Your task to perform on an android device: Check the news Image 0: 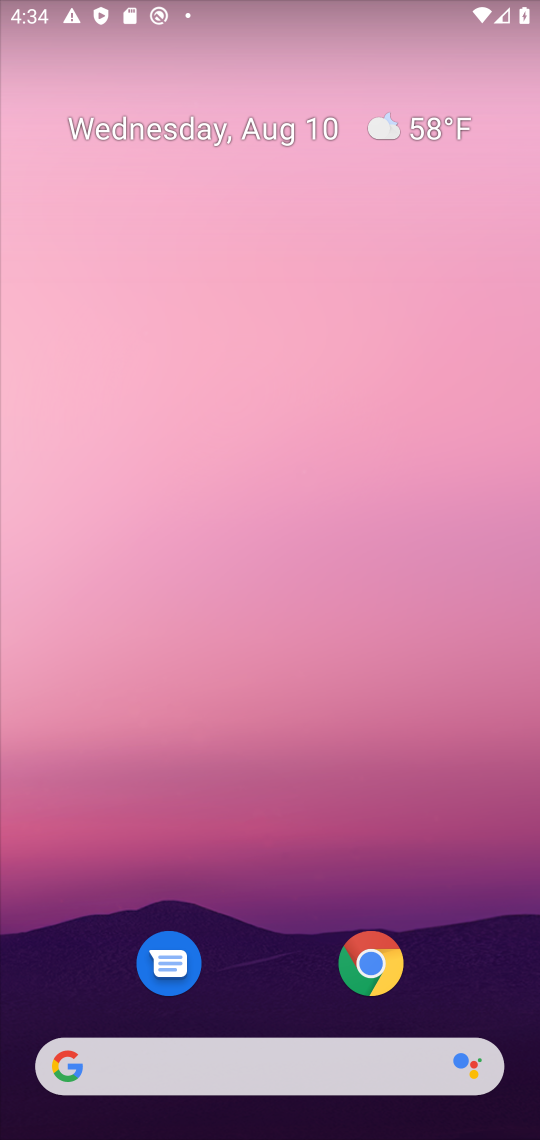
Step 0: drag from (289, 949) to (439, 44)
Your task to perform on an android device: Check the news Image 1: 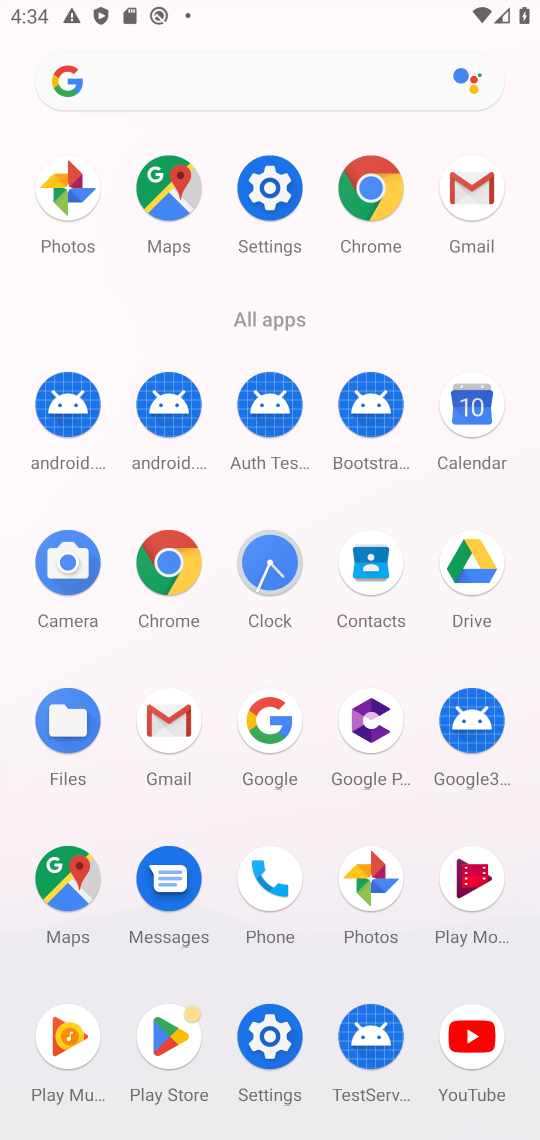
Step 1: click (155, 570)
Your task to perform on an android device: Check the news Image 2: 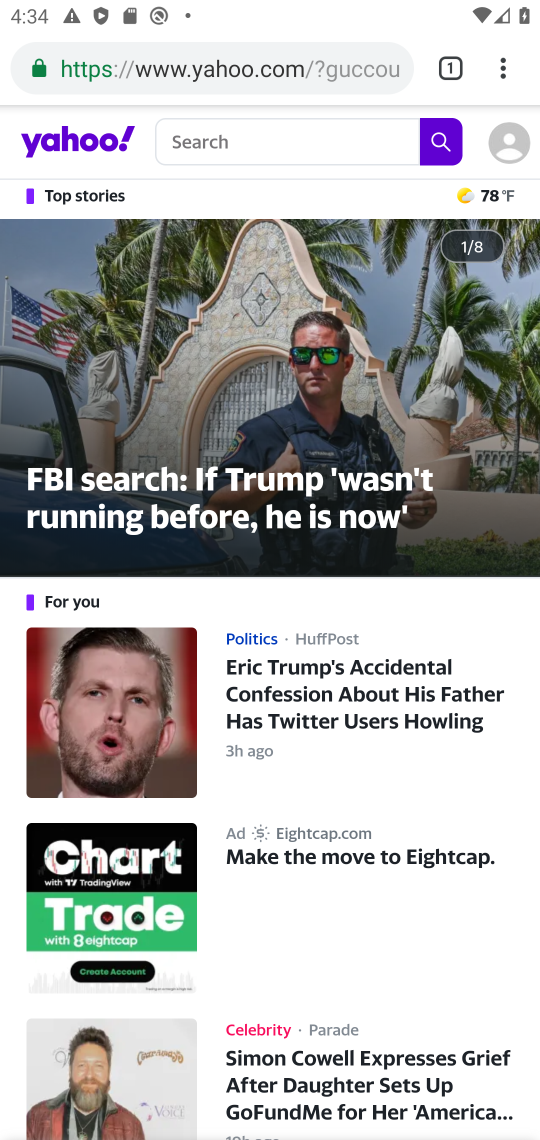
Step 2: click (291, 58)
Your task to perform on an android device: Check the news Image 3: 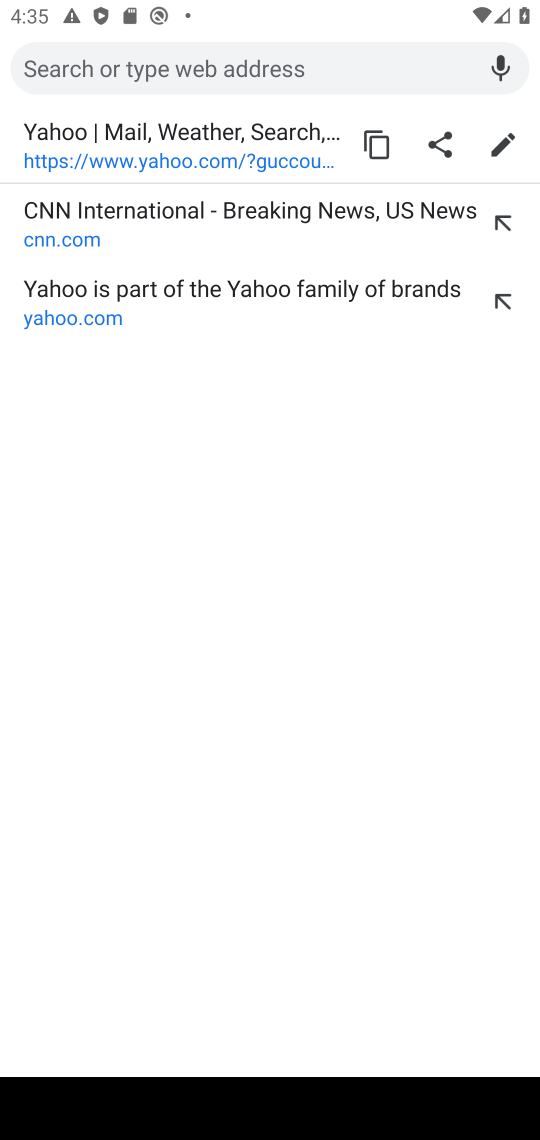
Step 3: type "Check the news"
Your task to perform on an android device: Check the news Image 4: 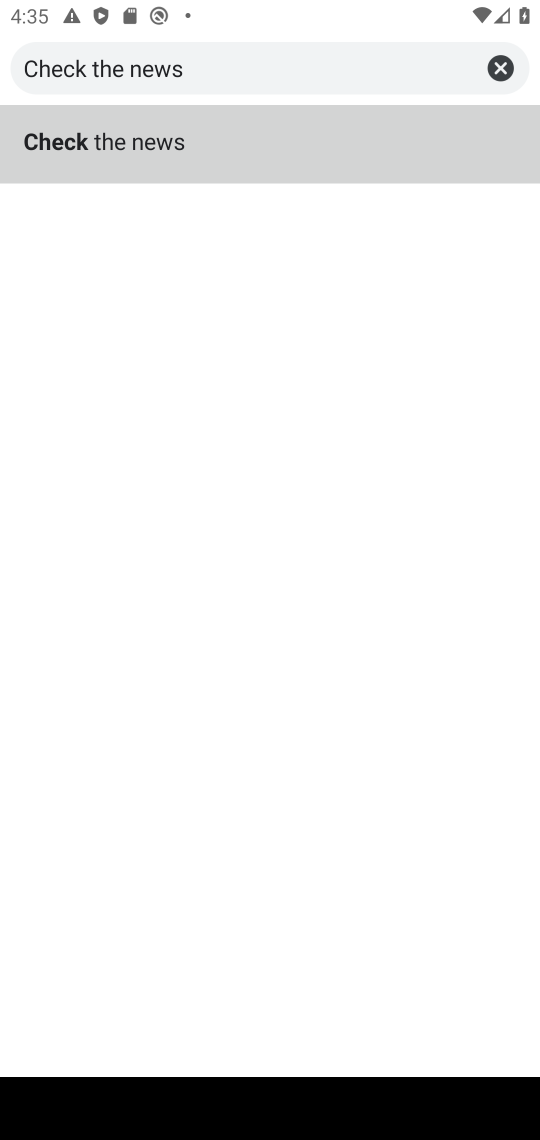
Step 4: click (175, 131)
Your task to perform on an android device: Check the news Image 5: 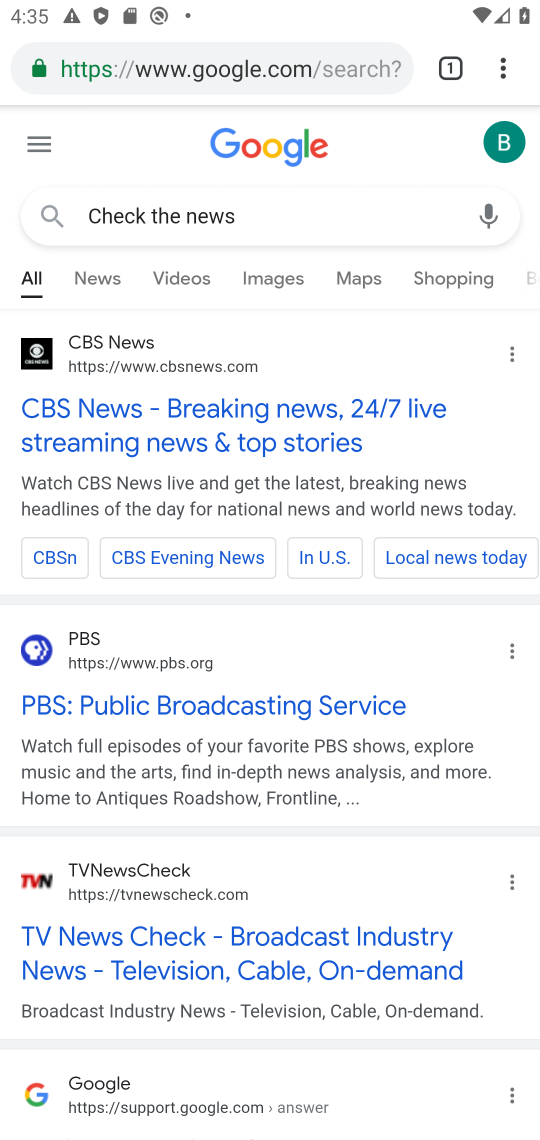
Step 5: task complete